Your task to perform on an android device: open a bookmark in the chrome app Image 0: 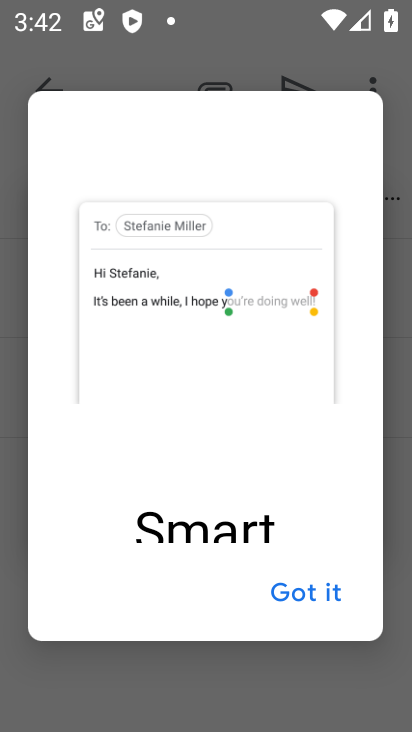
Step 0: press home button
Your task to perform on an android device: open a bookmark in the chrome app Image 1: 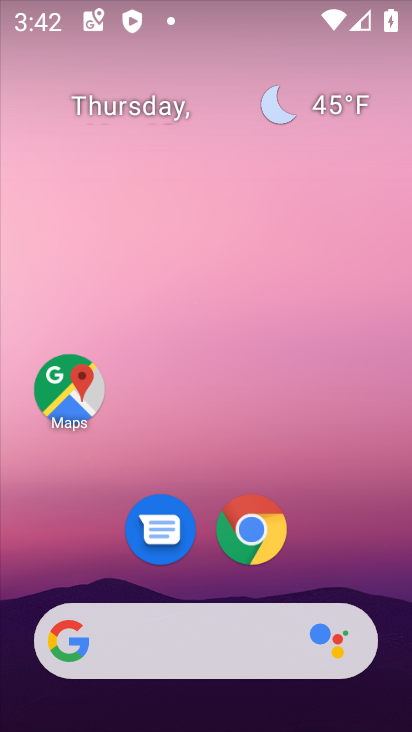
Step 1: click (353, 51)
Your task to perform on an android device: open a bookmark in the chrome app Image 2: 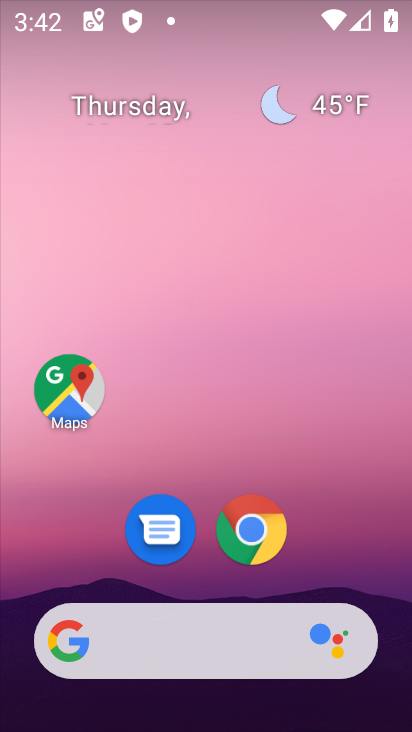
Step 2: drag from (335, 528) to (321, 40)
Your task to perform on an android device: open a bookmark in the chrome app Image 3: 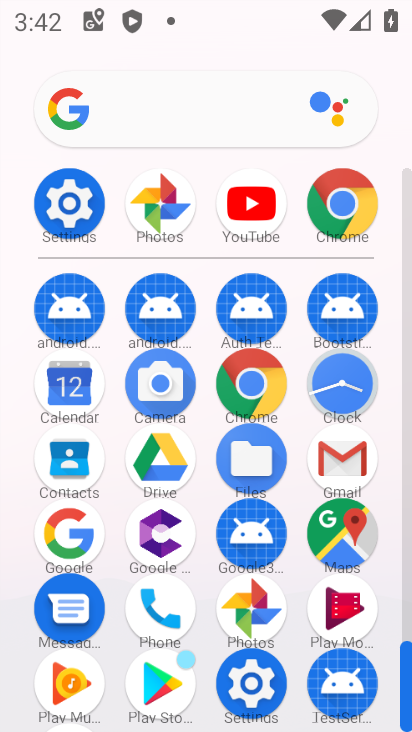
Step 3: click (326, 204)
Your task to perform on an android device: open a bookmark in the chrome app Image 4: 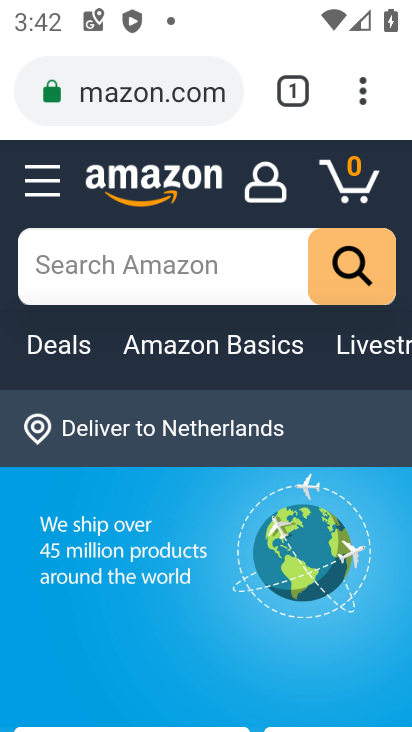
Step 4: task complete